Your task to perform on an android device: Go to ESPN.com Image 0: 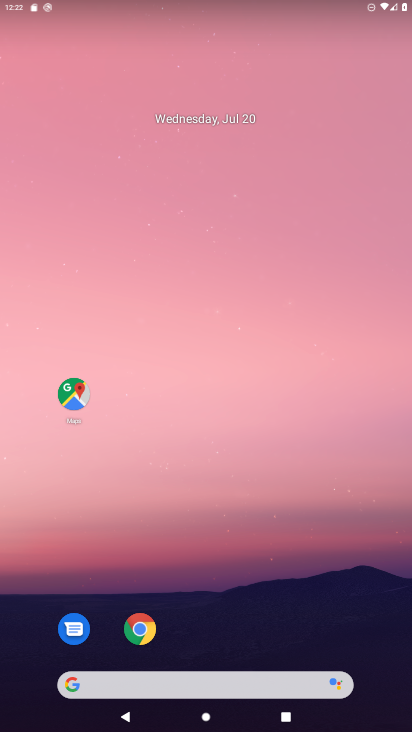
Step 0: click (130, 620)
Your task to perform on an android device: Go to ESPN.com Image 1: 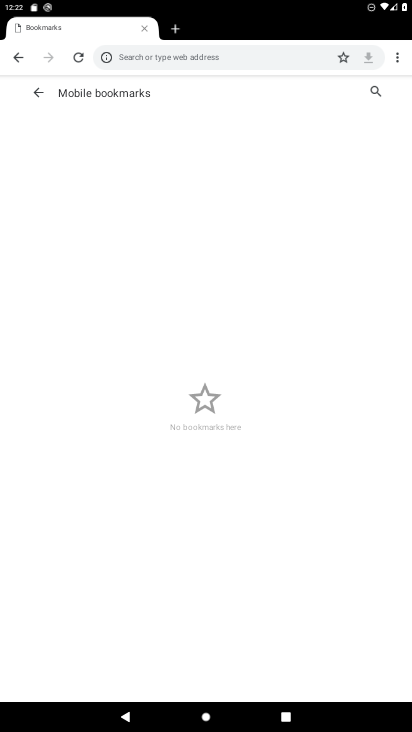
Step 1: click (12, 57)
Your task to perform on an android device: Go to ESPN.com Image 2: 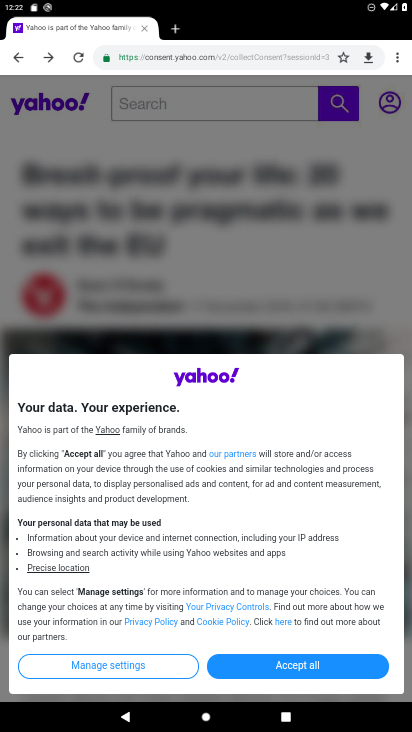
Step 2: click (209, 51)
Your task to perform on an android device: Go to ESPN.com Image 3: 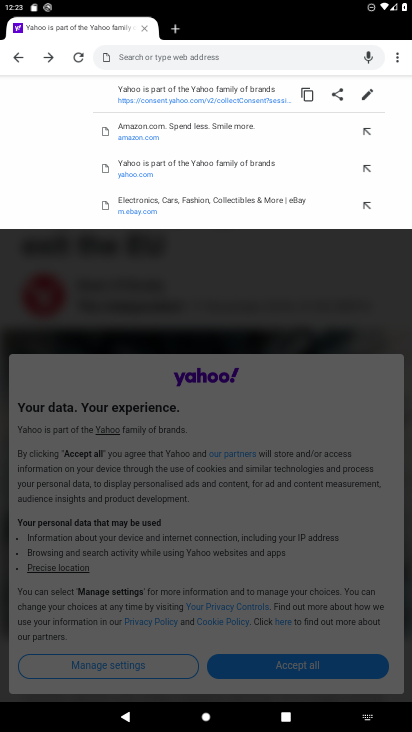
Step 3: type "www.espn.com"
Your task to perform on an android device: Go to ESPN.com Image 4: 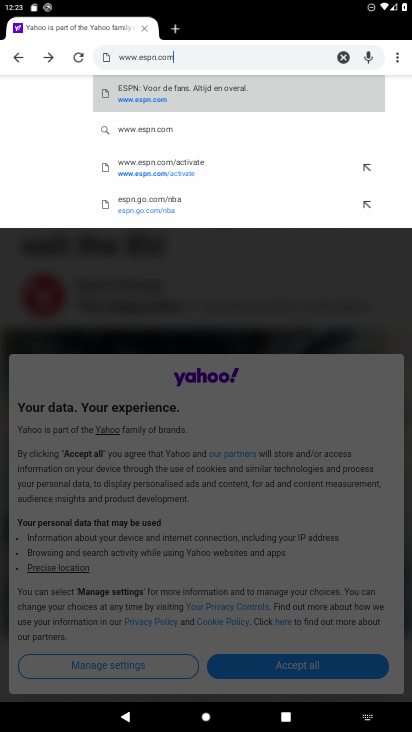
Step 4: click (152, 96)
Your task to perform on an android device: Go to ESPN.com Image 5: 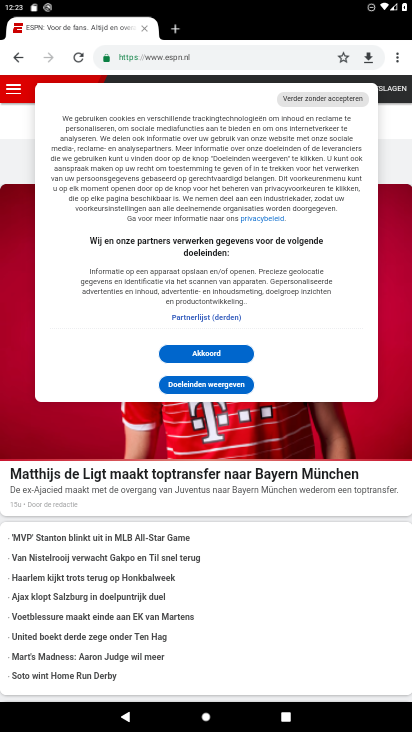
Step 5: task complete